Your task to perform on an android device: choose inbox layout in the gmail app Image 0: 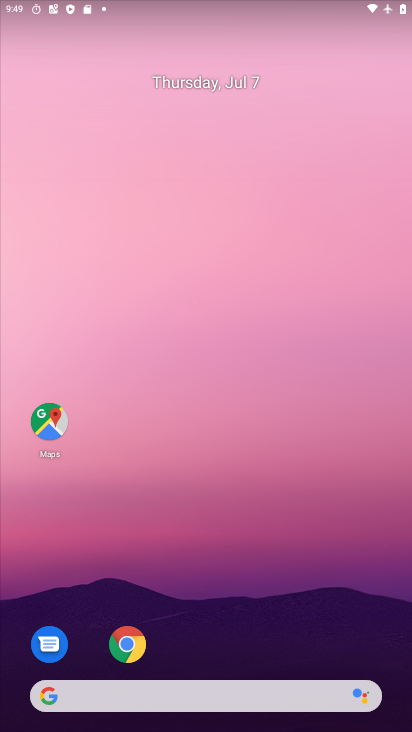
Step 0: drag from (286, 551) to (258, 172)
Your task to perform on an android device: choose inbox layout in the gmail app Image 1: 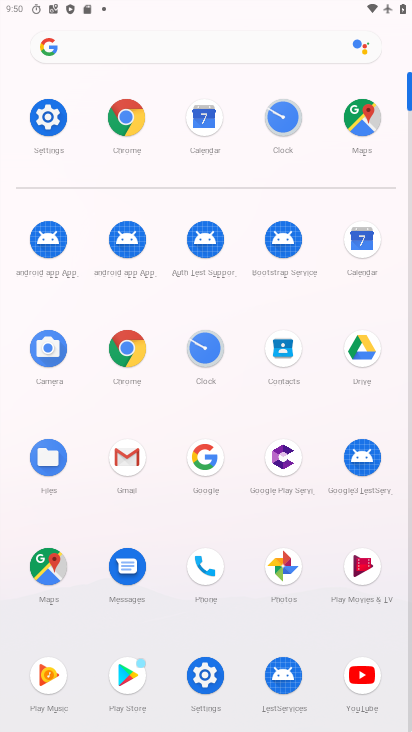
Step 1: click (130, 459)
Your task to perform on an android device: choose inbox layout in the gmail app Image 2: 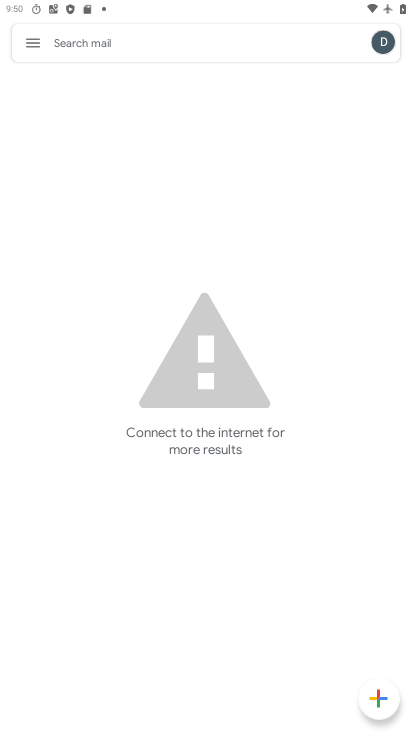
Step 2: click (27, 44)
Your task to perform on an android device: choose inbox layout in the gmail app Image 3: 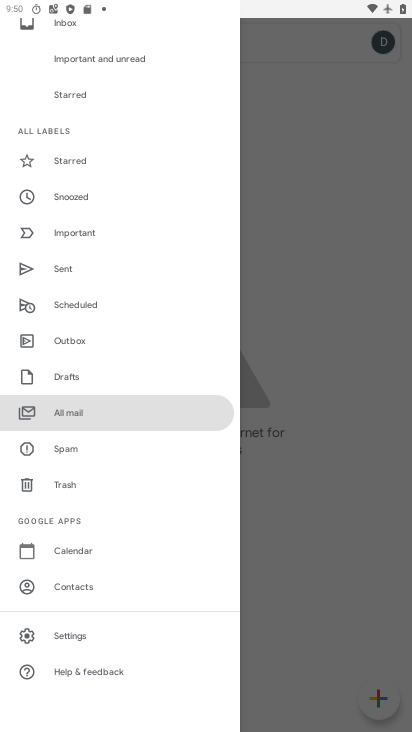
Step 3: click (79, 632)
Your task to perform on an android device: choose inbox layout in the gmail app Image 4: 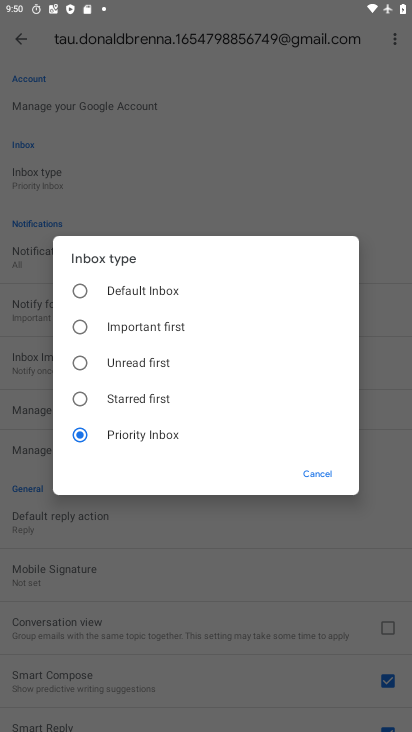
Step 4: task complete